Your task to perform on an android device: Open Google Image 0: 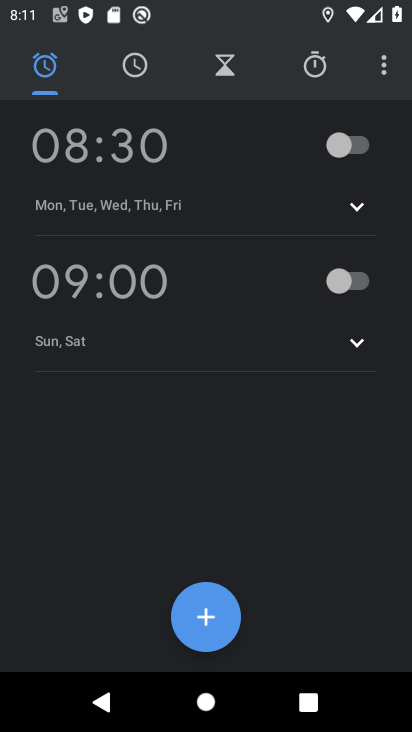
Step 0: press home button
Your task to perform on an android device: Open Google Image 1: 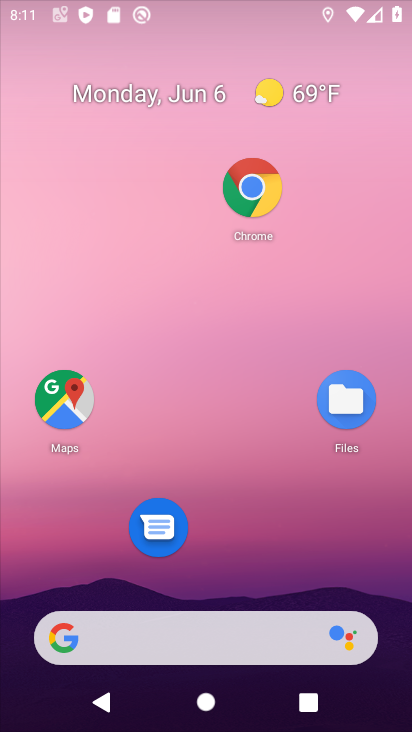
Step 1: drag from (251, 562) to (250, 56)
Your task to perform on an android device: Open Google Image 2: 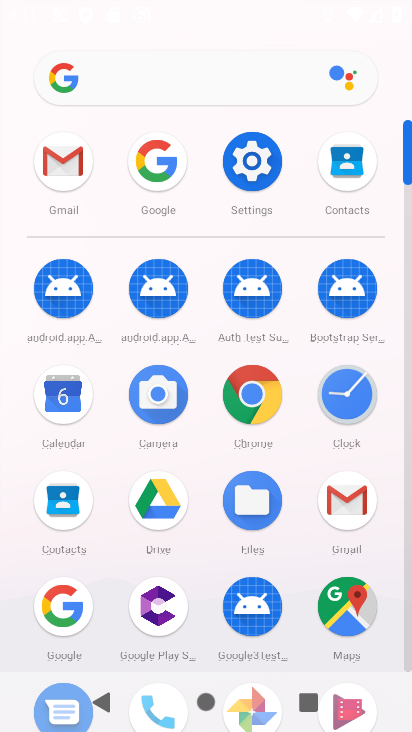
Step 2: click (168, 164)
Your task to perform on an android device: Open Google Image 3: 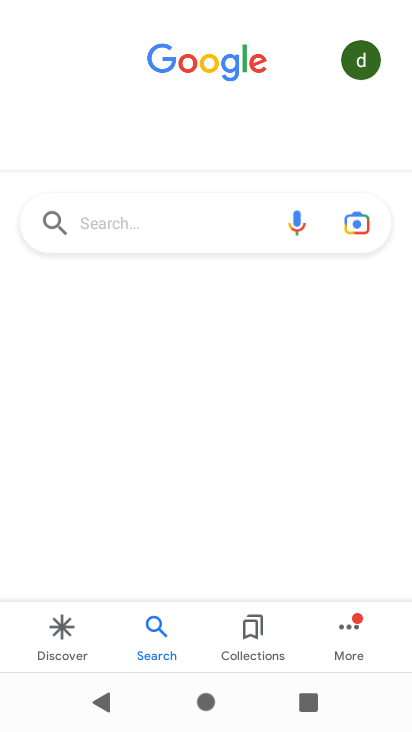
Step 3: task complete